Your task to perform on an android device: What is the recent news? Image 0: 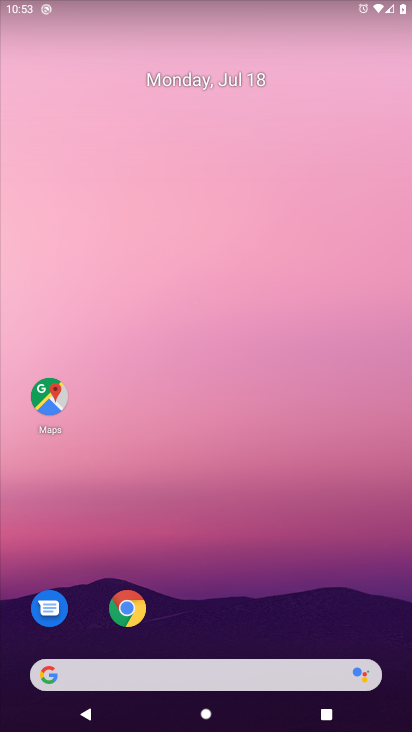
Step 0: click (103, 674)
Your task to perform on an android device: What is the recent news? Image 1: 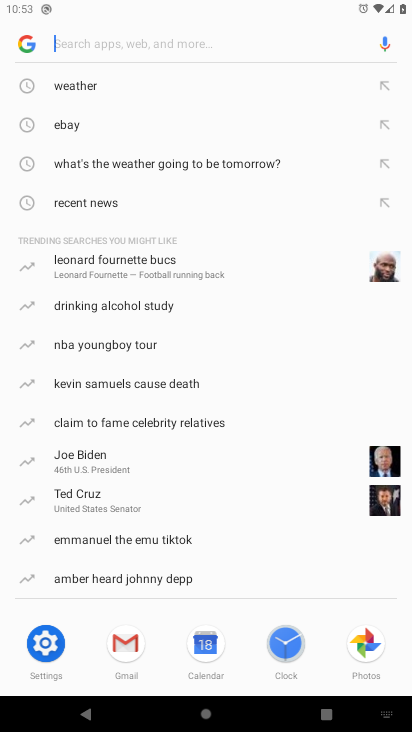
Step 1: type "What is the recent news?"
Your task to perform on an android device: What is the recent news? Image 2: 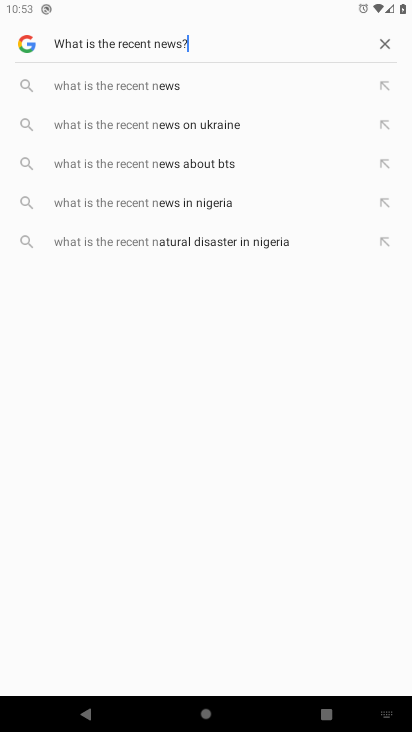
Step 2: type ""
Your task to perform on an android device: What is the recent news? Image 3: 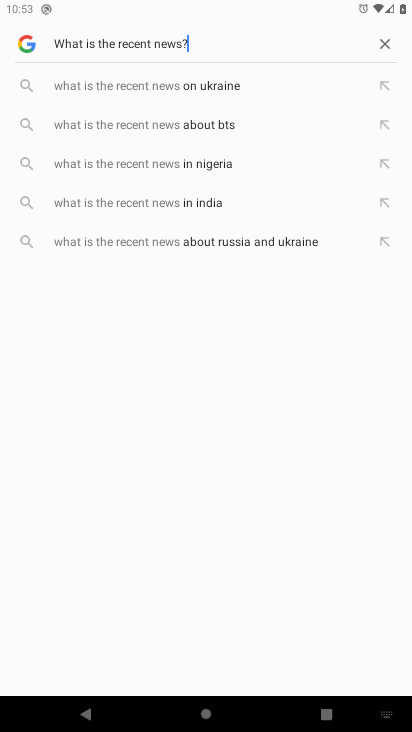
Step 3: type ""
Your task to perform on an android device: What is the recent news? Image 4: 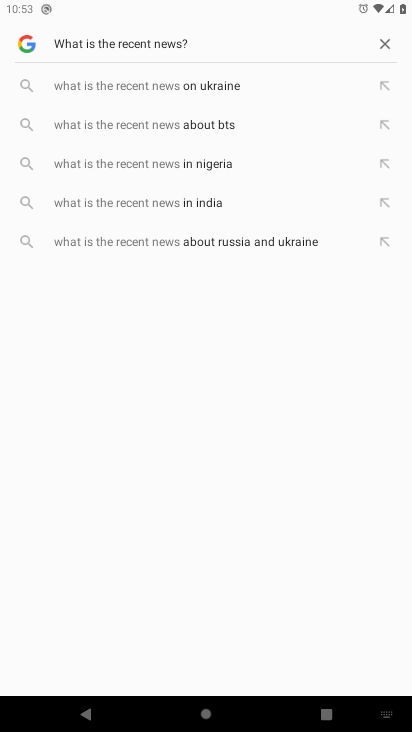
Step 4: type ""
Your task to perform on an android device: What is the recent news? Image 5: 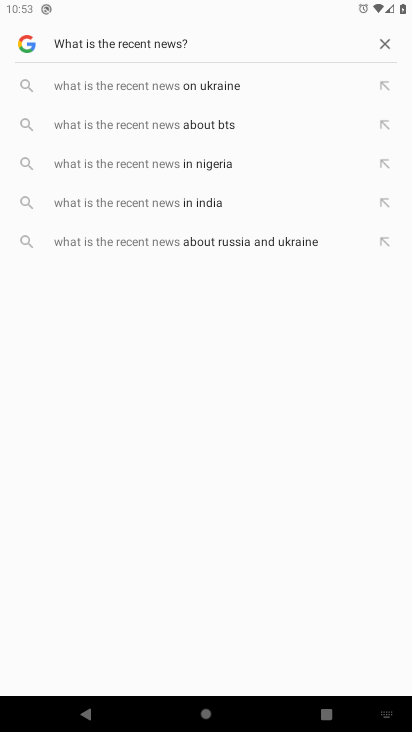
Step 5: task complete